Your task to perform on an android device: check the backup settings in the google photos Image 0: 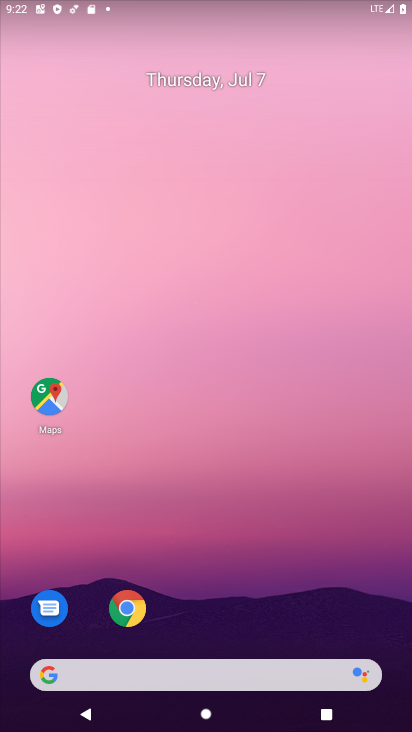
Step 0: drag from (226, 628) to (217, 107)
Your task to perform on an android device: check the backup settings in the google photos Image 1: 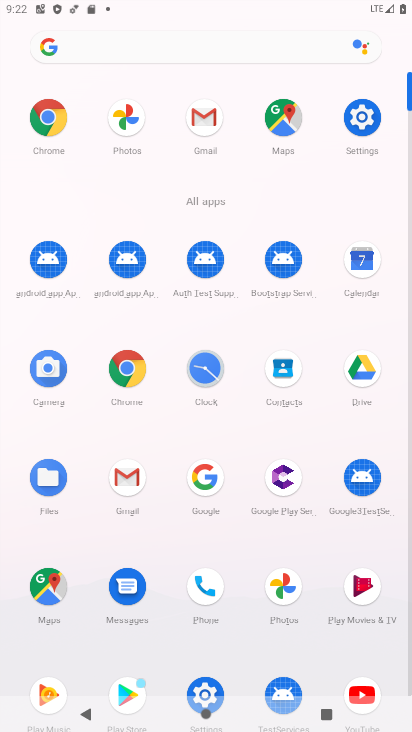
Step 1: click (286, 581)
Your task to perform on an android device: check the backup settings in the google photos Image 2: 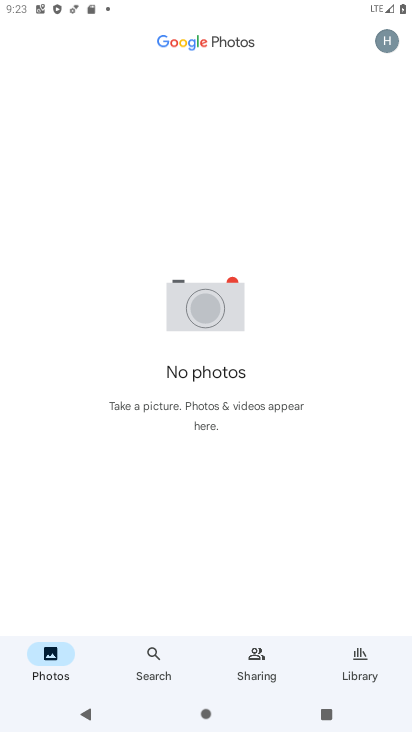
Step 2: click (383, 44)
Your task to perform on an android device: check the backup settings in the google photos Image 3: 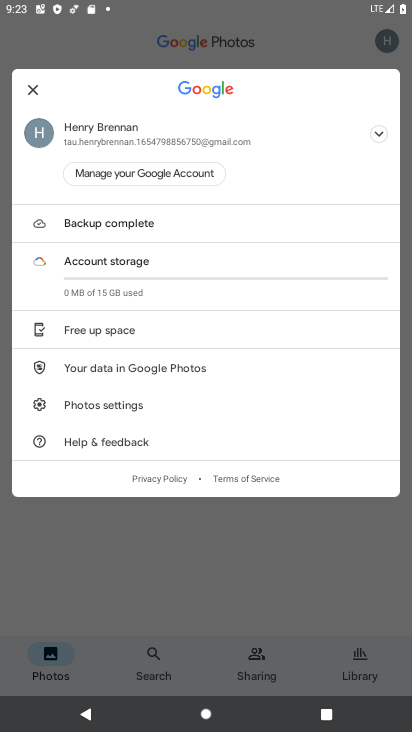
Step 3: click (134, 134)
Your task to perform on an android device: check the backup settings in the google photos Image 4: 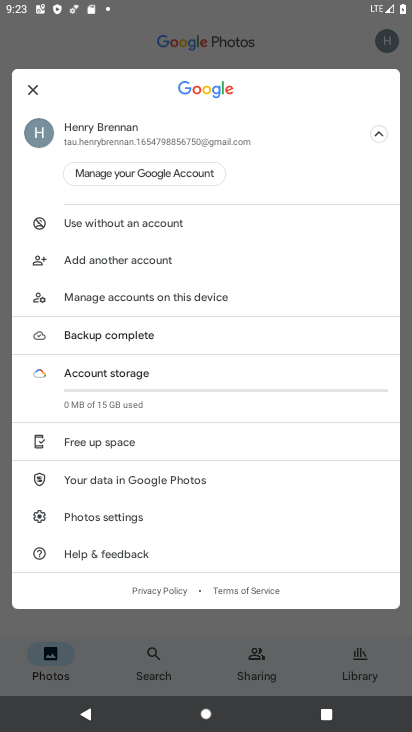
Step 4: click (105, 522)
Your task to perform on an android device: check the backup settings in the google photos Image 5: 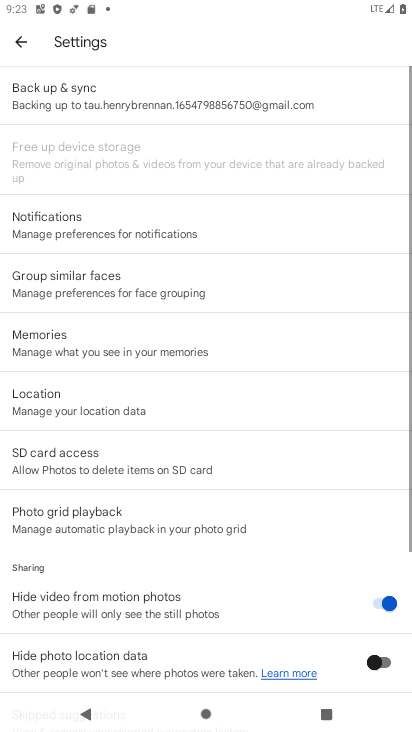
Step 5: click (72, 97)
Your task to perform on an android device: check the backup settings in the google photos Image 6: 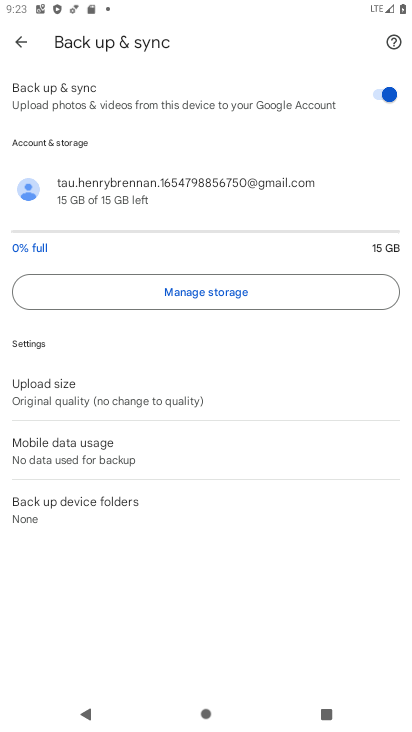
Step 6: task complete